Your task to perform on an android device: Open notification settings Image 0: 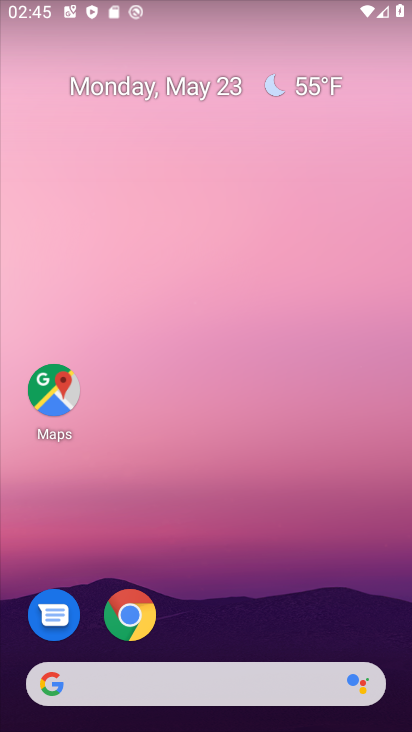
Step 0: drag from (363, 625) to (344, 264)
Your task to perform on an android device: Open notification settings Image 1: 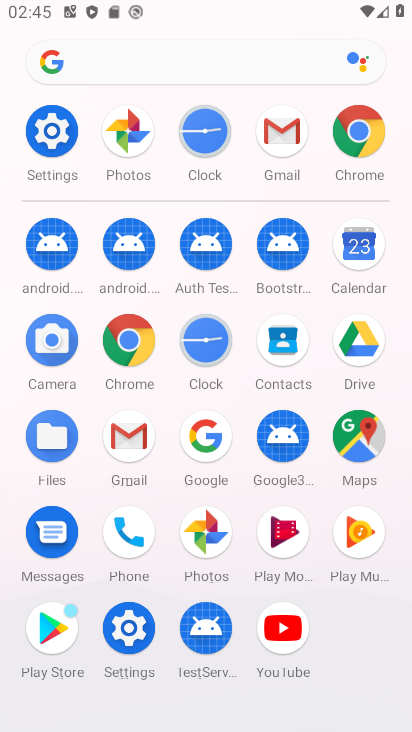
Step 1: click (127, 651)
Your task to perform on an android device: Open notification settings Image 2: 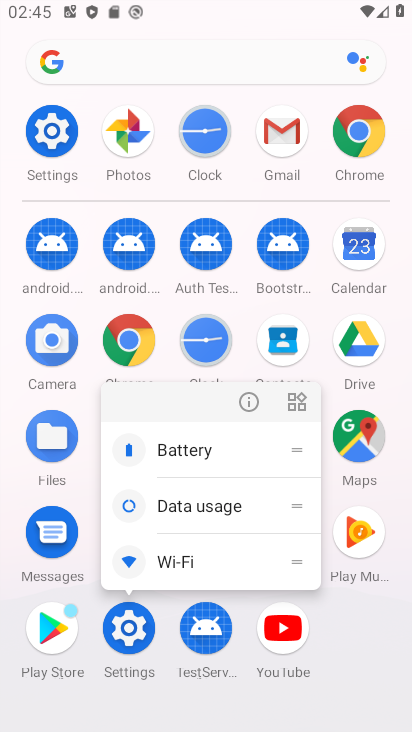
Step 2: click (127, 651)
Your task to perform on an android device: Open notification settings Image 3: 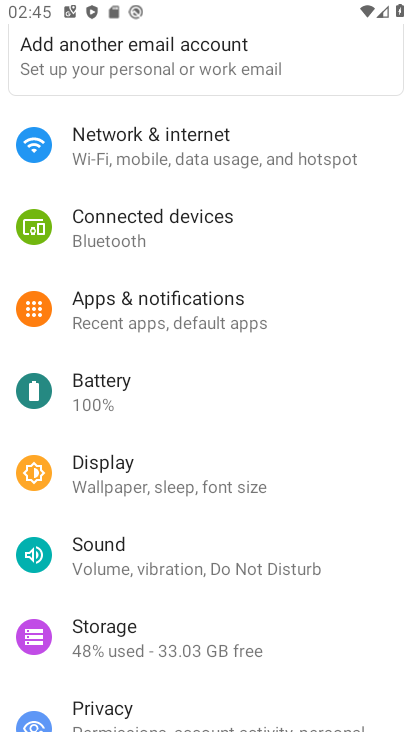
Step 3: drag from (364, 637) to (372, 547)
Your task to perform on an android device: Open notification settings Image 4: 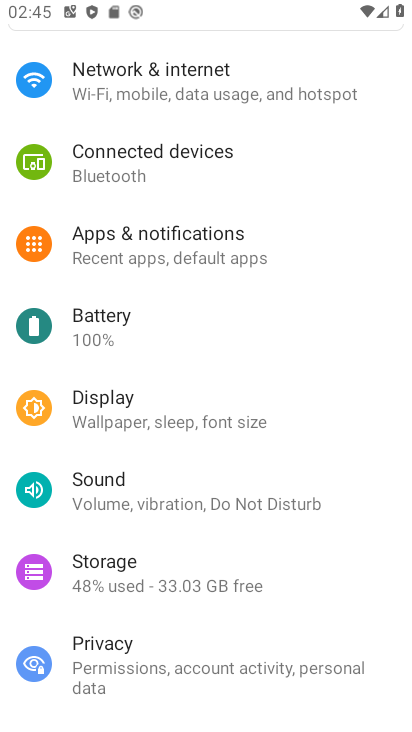
Step 4: drag from (372, 675) to (366, 562)
Your task to perform on an android device: Open notification settings Image 5: 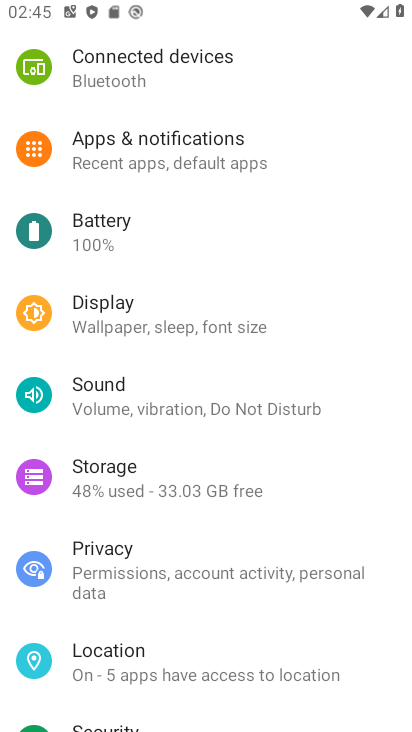
Step 5: drag from (363, 660) to (378, 549)
Your task to perform on an android device: Open notification settings Image 6: 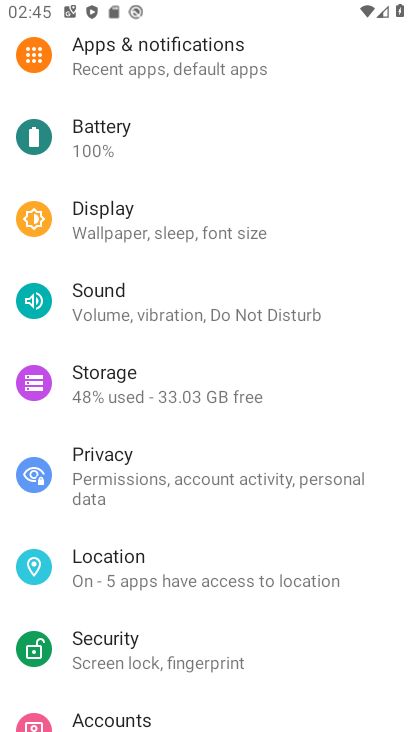
Step 6: drag from (375, 688) to (381, 612)
Your task to perform on an android device: Open notification settings Image 7: 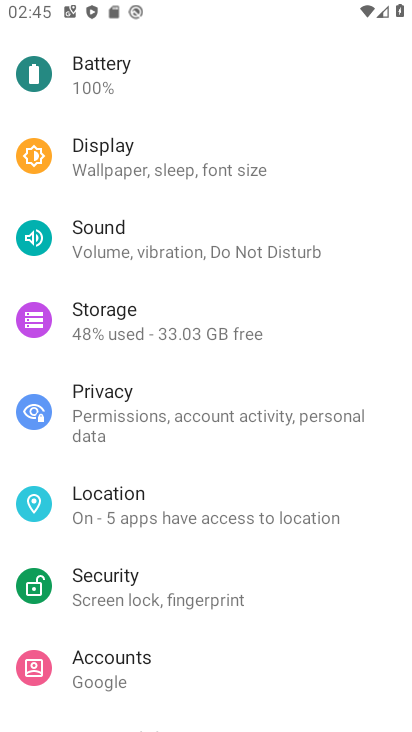
Step 7: drag from (383, 694) to (362, 582)
Your task to perform on an android device: Open notification settings Image 8: 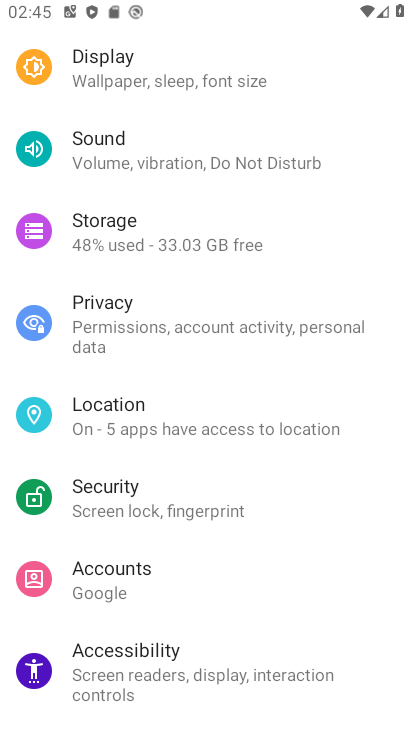
Step 8: drag from (344, 579) to (357, 482)
Your task to perform on an android device: Open notification settings Image 9: 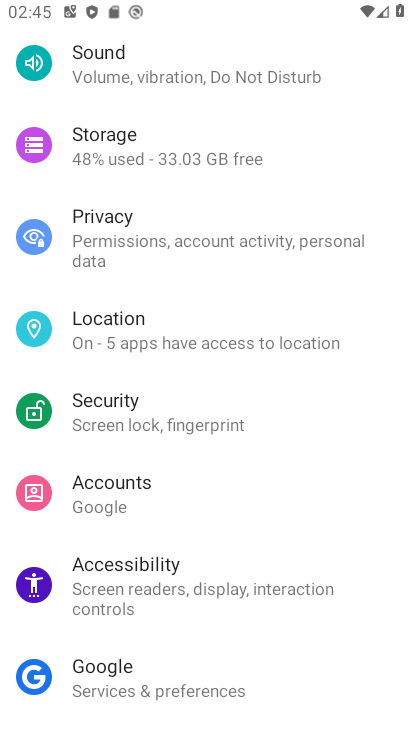
Step 9: drag from (347, 644) to (348, 545)
Your task to perform on an android device: Open notification settings Image 10: 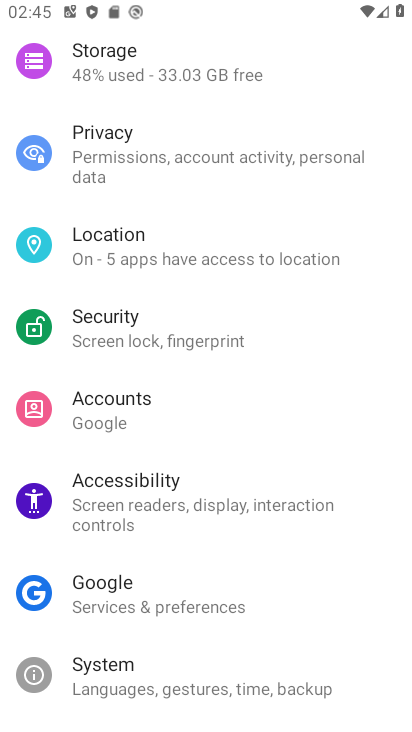
Step 10: drag from (349, 655) to (358, 551)
Your task to perform on an android device: Open notification settings Image 11: 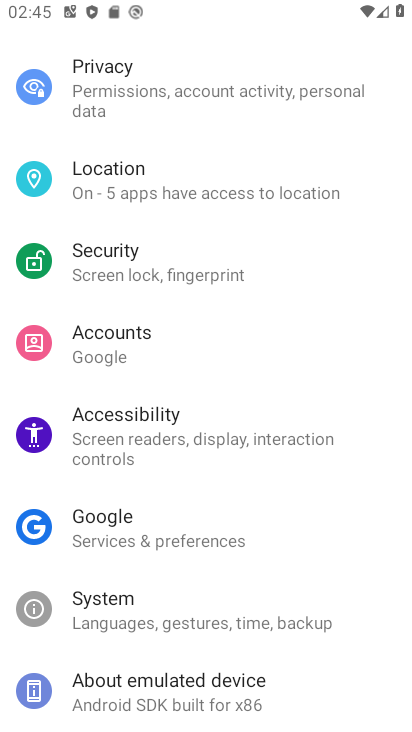
Step 11: drag from (367, 652) to (387, 561)
Your task to perform on an android device: Open notification settings Image 12: 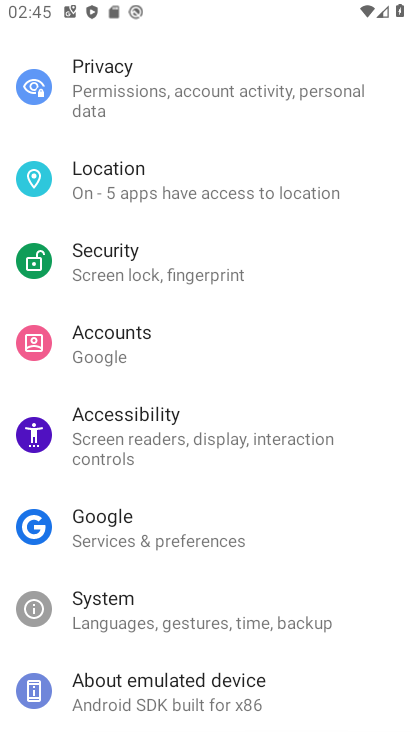
Step 12: drag from (383, 432) to (366, 537)
Your task to perform on an android device: Open notification settings Image 13: 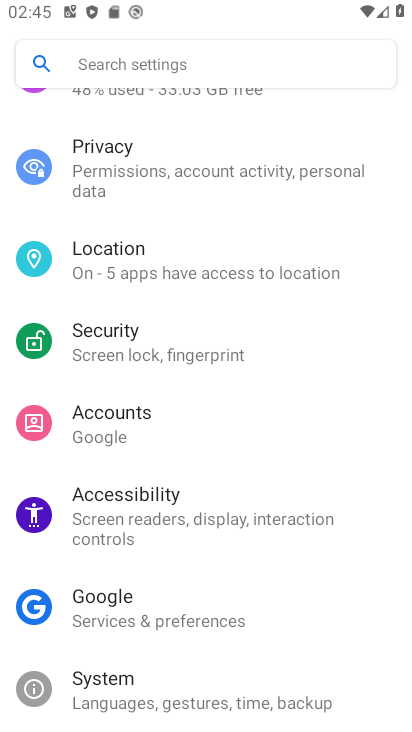
Step 13: drag from (368, 407) to (373, 521)
Your task to perform on an android device: Open notification settings Image 14: 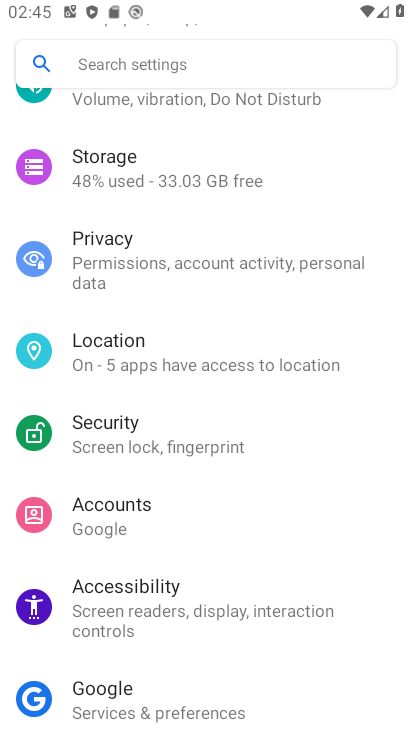
Step 14: drag from (368, 375) to (376, 479)
Your task to perform on an android device: Open notification settings Image 15: 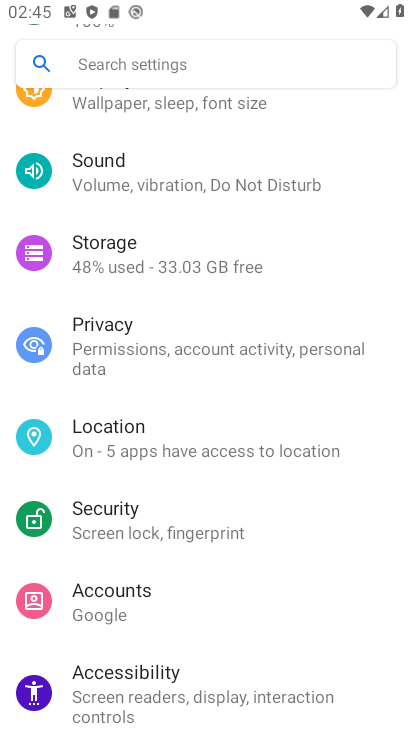
Step 15: drag from (378, 332) to (382, 435)
Your task to perform on an android device: Open notification settings Image 16: 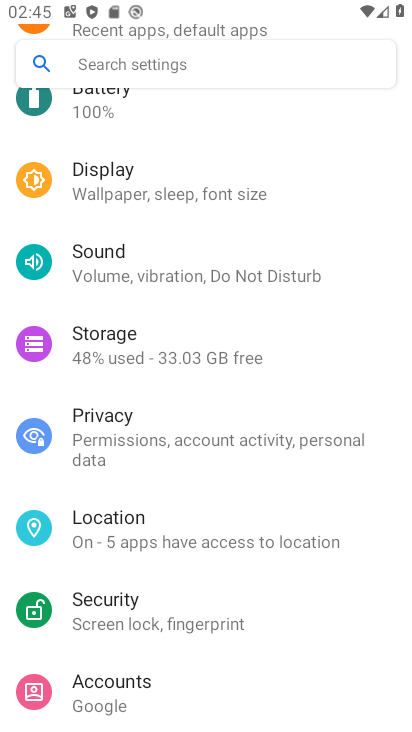
Step 16: drag from (363, 351) to (357, 461)
Your task to perform on an android device: Open notification settings Image 17: 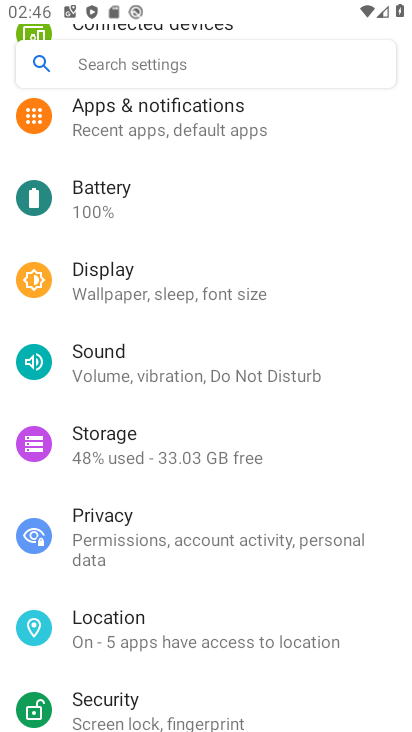
Step 17: drag from (357, 319) to (375, 465)
Your task to perform on an android device: Open notification settings Image 18: 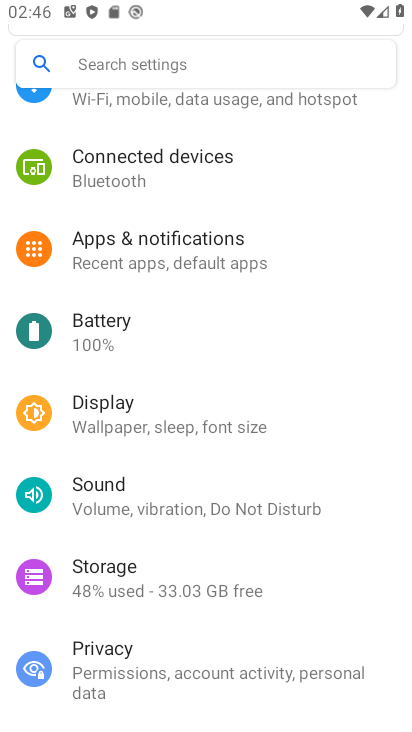
Step 18: drag from (356, 274) to (335, 445)
Your task to perform on an android device: Open notification settings Image 19: 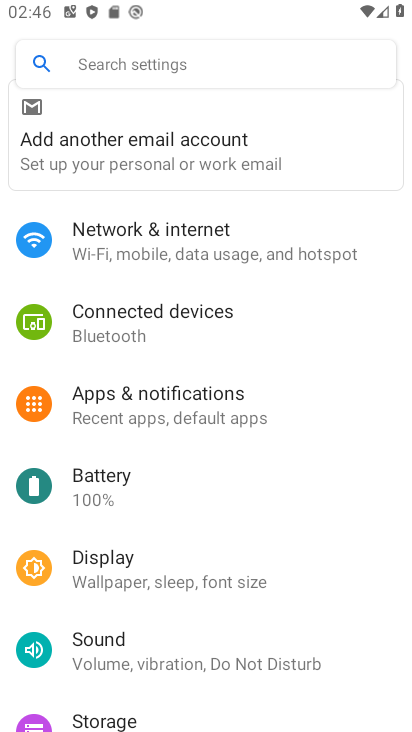
Step 19: click (199, 411)
Your task to perform on an android device: Open notification settings Image 20: 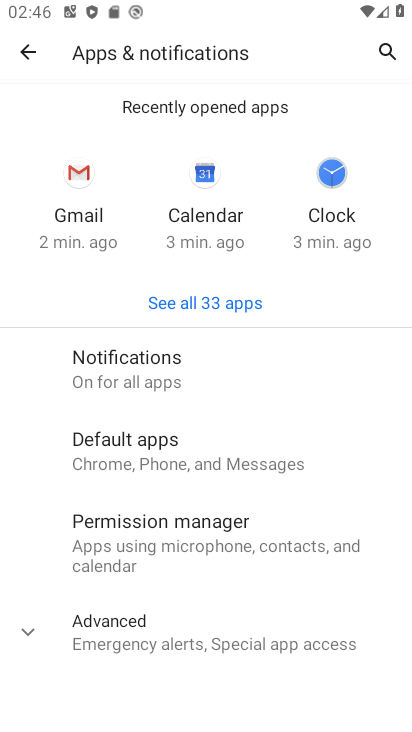
Step 20: click (173, 380)
Your task to perform on an android device: Open notification settings Image 21: 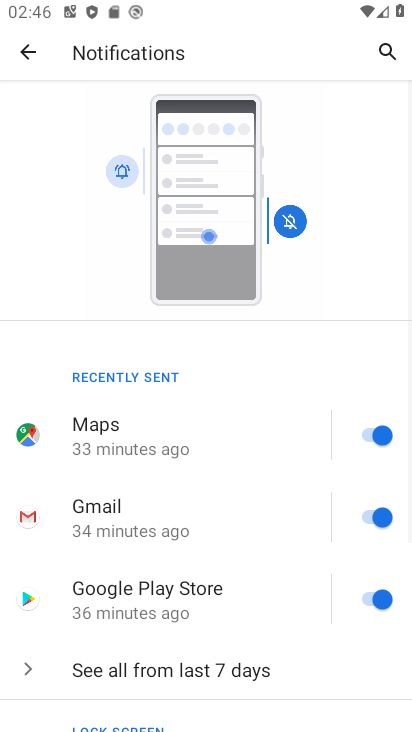
Step 21: task complete